Your task to perform on an android device: turn off smart reply in the gmail app Image 0: 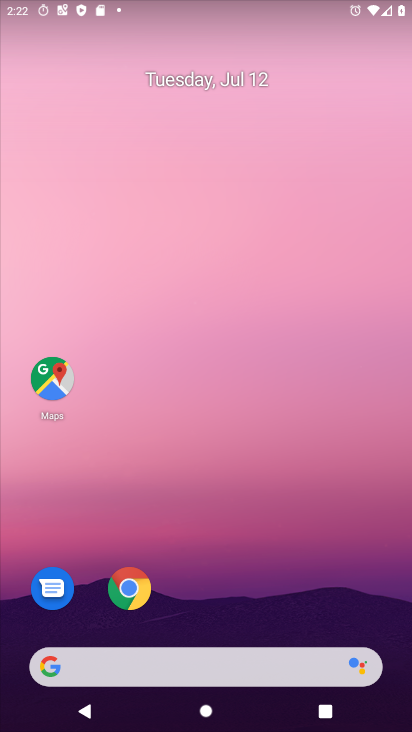
Step 0: drag from (395, 212) to (266, 250)
Your task to perform on an android device: turn off smart reply in the gmail app Image 1: 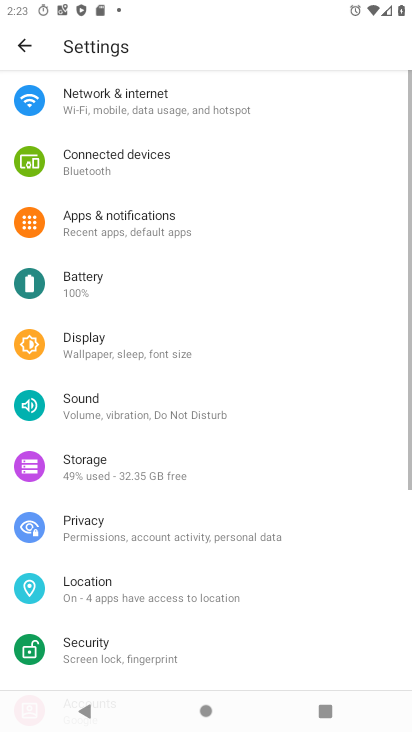
Step 1: drag from (197, 565) to (245, 106)
Your task to perform on an android device: turn off smart reply in the gmail app Image 2: 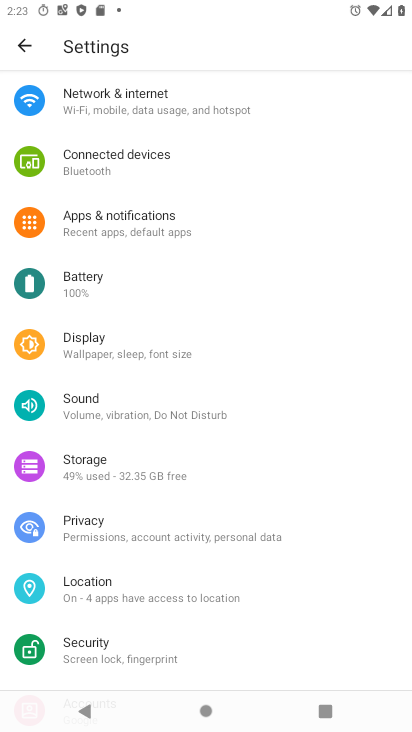
Step 2: press home button
Your task to perform on an android device: turn off smart reply in the gmail app Image 3: 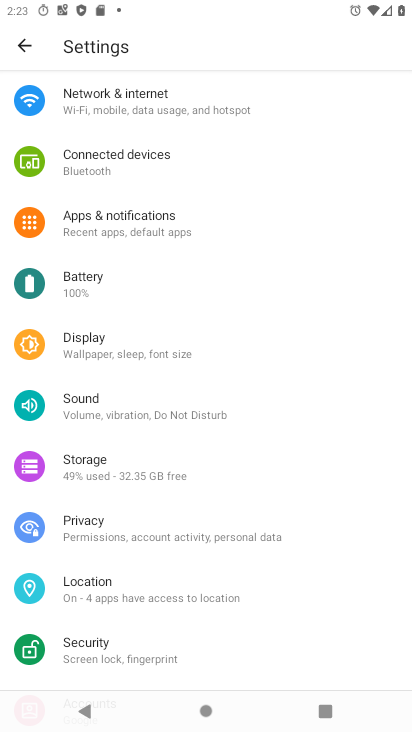
Step 3: drag from (218, 627) to (269, 25)
Your task to perform on an android device: turn off smart reply in the gmail app Image 4: 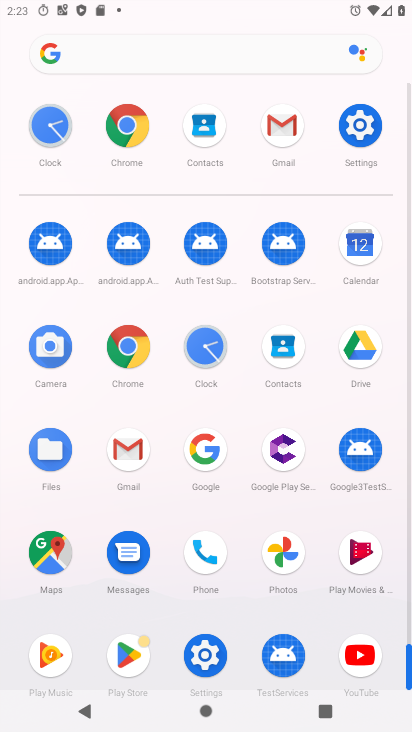
Step 4: click (122, 441)
Your task to perform on an android device: turn off smart reply in the gmail app Image 5: 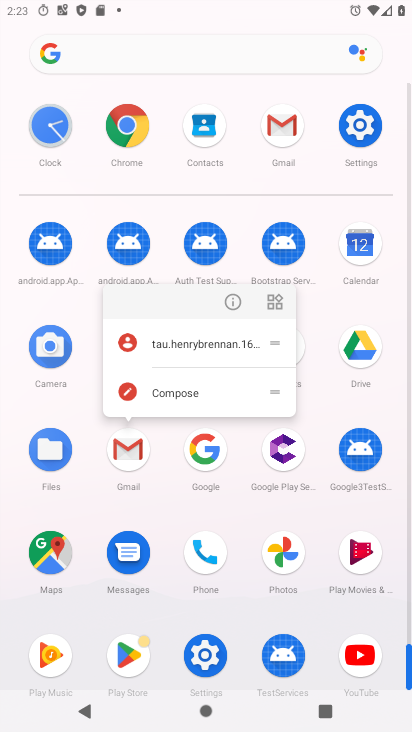
Step 5: click (222, 309)
Your task to perform on an android device: turn off smart reply in the gmail app Image 6: 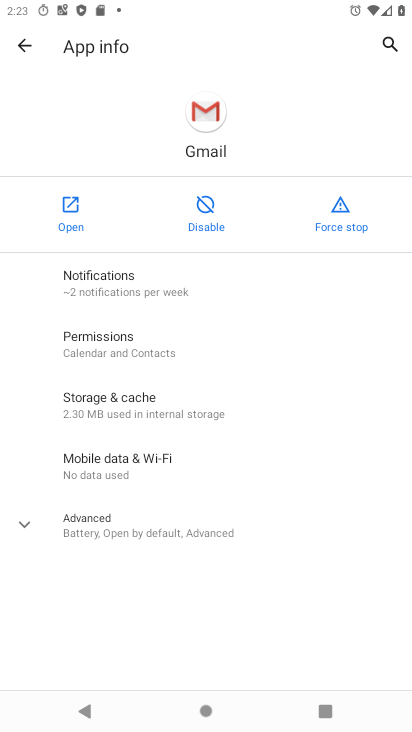
Step 6: click (63, 211)
Your task to perform on an android device: turn off smart reply in the gmail app Image 7: 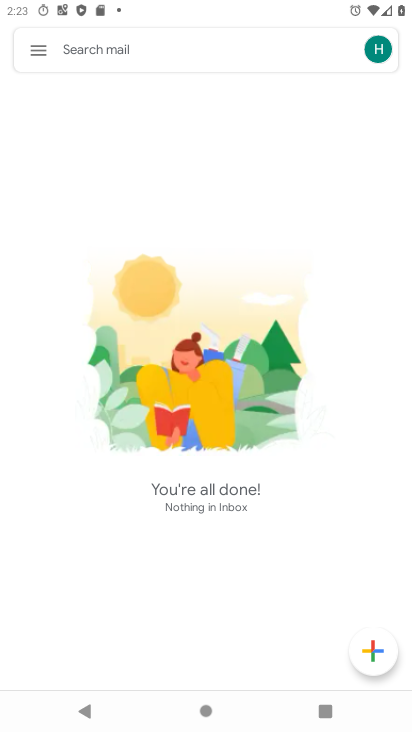
Step 7: click (46, 48)
Your task to perform on an android device: turn off smart reply in the gmail app Image 8: 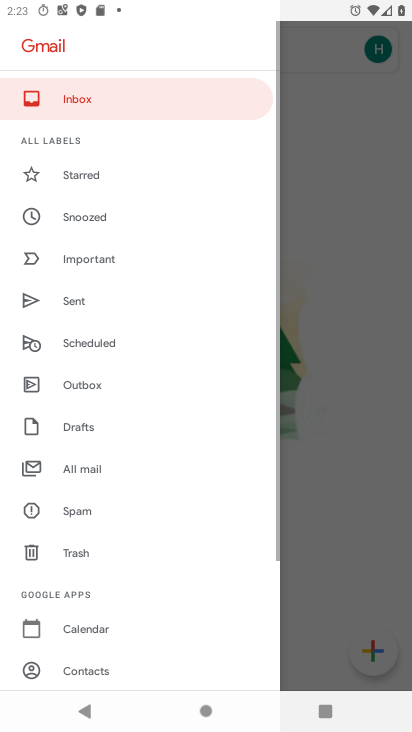
Step 8: drag from (159, 597) to (171, 78)
Your task to perform on an android device: turn off smart reply in the gmail app Image 9: 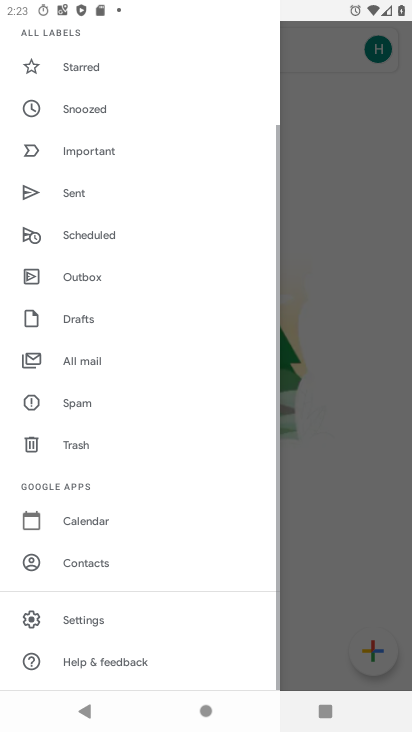
Step 9: click (101, 619)
Your task to perform on an android device: turn off smart reply in the gmail app Image 10: 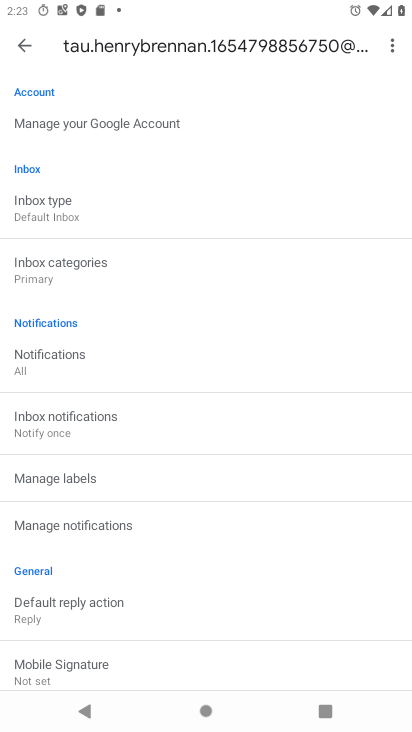
Step 10: drag from (136, 459) to (203, 174)
Your task to perform on an android device: turn off smart reply in the gmail app Image 11: 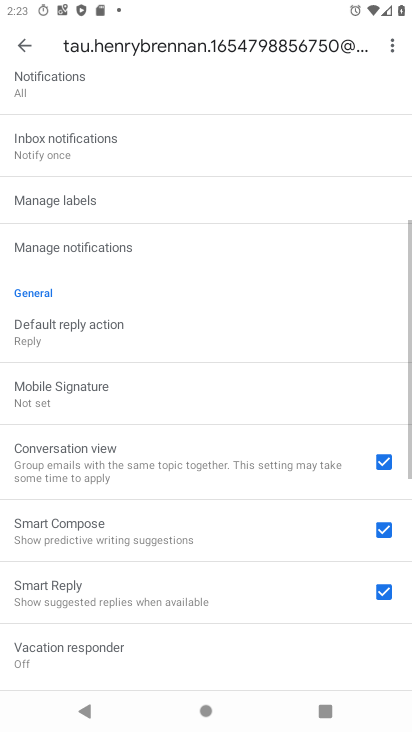
Step 11: drag from (152, 192) to (294, 673)
Your task to perform on an android device: turn off smart reply in the gmail app Image 12: 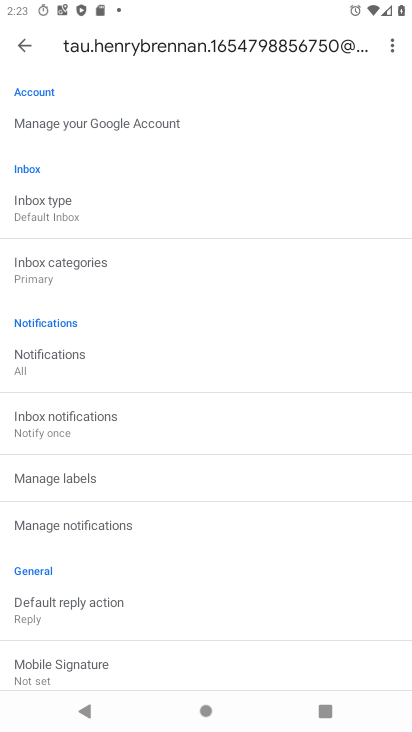
Step 12: click (91, 206)
Your task to perform on an android device: turn off smart reply in the gmail app Image 13: 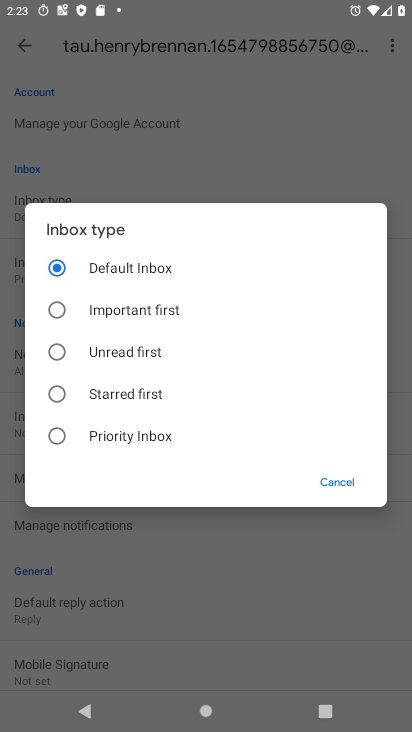
Step 13: click (339, 488)
Your task to perform on an android device: turn off smart reply in the gmail app Image 14: 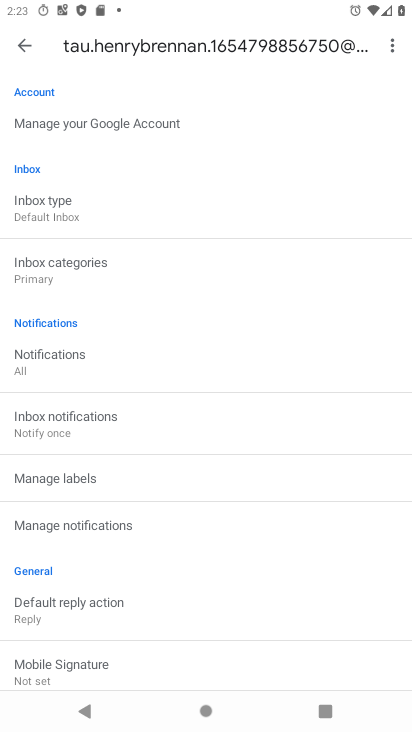
Step 14: drag from (236, 535) to (279, 97)
Your task to perform on an android device: turn off smart reply in the gmail app Image 15: 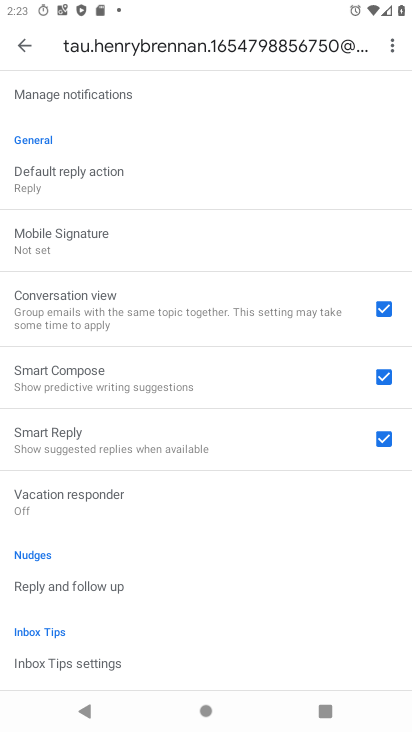
Step 15: drag from (263, 515) to (288, 144)
Your task to perform on an android device: turn off smart reply in the gmail app Image 16: 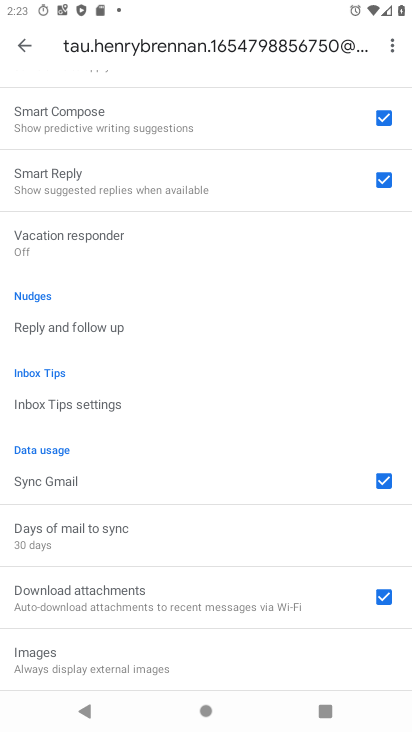
Step 16: click (382, 173)
Your task to perform on an android device: turn off smart reply in the gmail app Image 17: 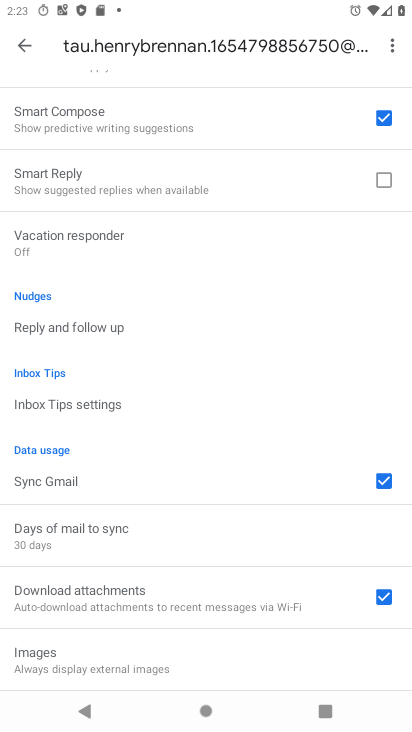
Step 17: task complete